Your task to perform on an android device: Open maps Image 0: 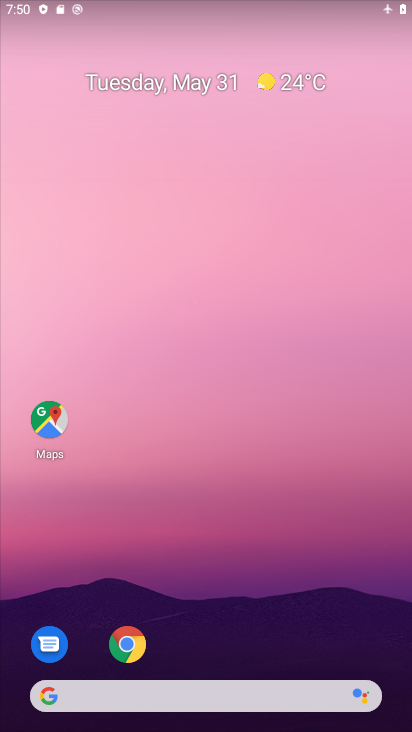
Step 0: drag from (275, 590) to (277, 290)
Your task to perform on an android device: Open maps Image 1: 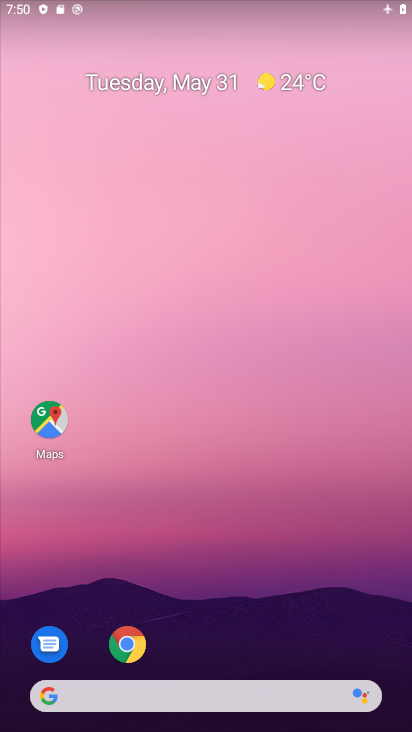
Step 1: drag from (269, 645) to (287, 244)
Your task to perform on an android device: Open maps Image 2: 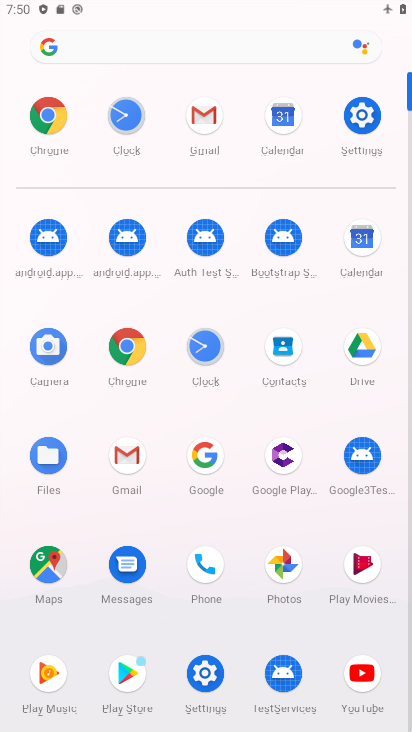
Step 2: click (60, 550)
Your task to perform on an android device: Open maps Image 3: 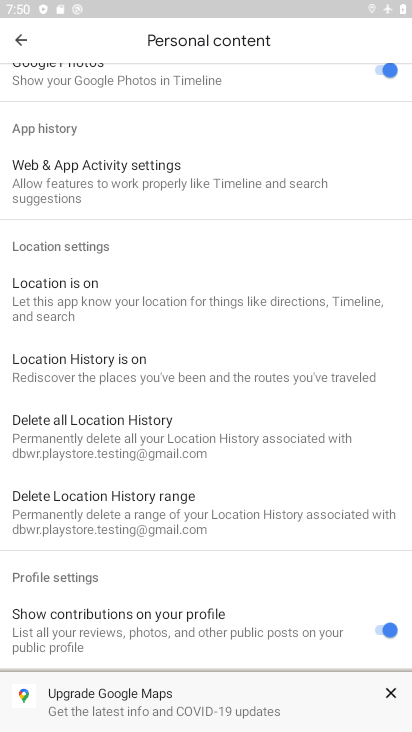
Step 3: drag from (138, 108) to (143, 477)
Your task to perform on an android device: Open maps Image 4: 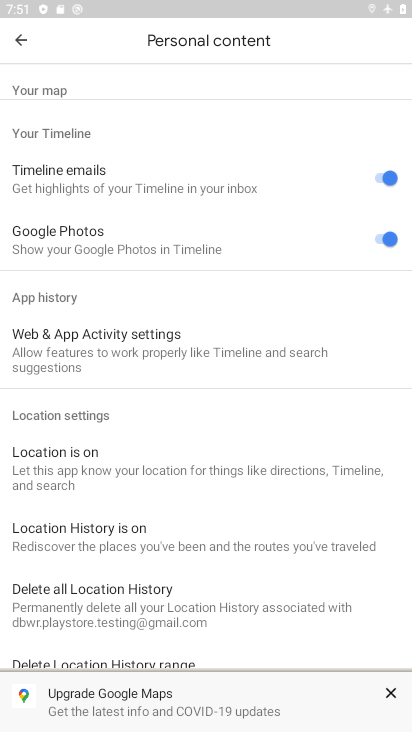
Step 4: click (18, 44)
Your task to perform on an android device: Open maps Image 5: 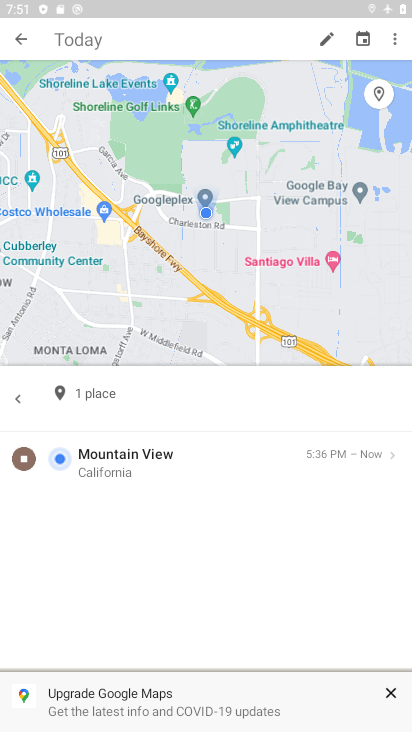
Step 5: task complete